Your task to perform on an android device: open sync settings in chrome Image 0: 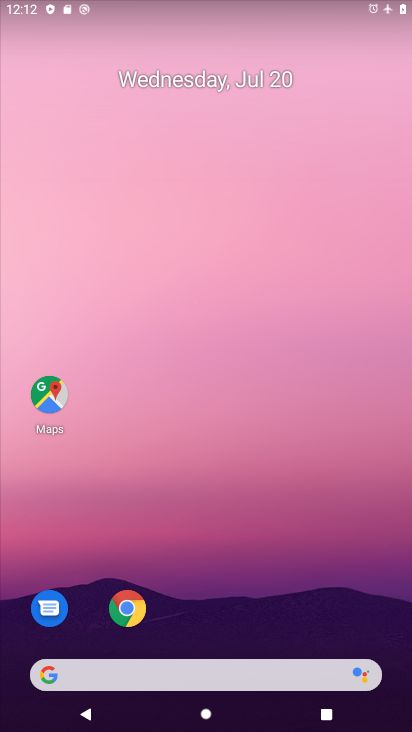
Step 0: click (126, 606)
Your task to perform on an android device: open sync settings in chrome Image 1: 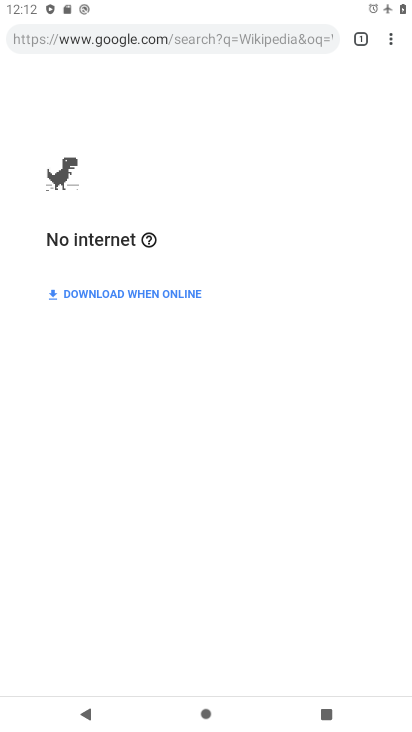
Step 1: click (392, 38)
Your task to perform on an android device: open sync settings in chrome Image 2: 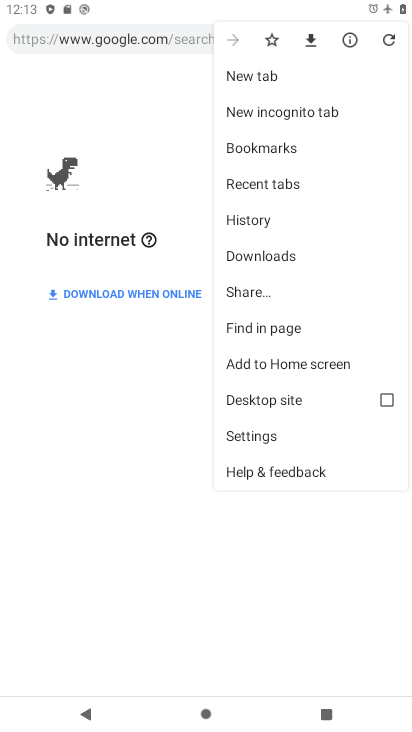
Step 2: click (258, 440)
Your task to perform on an android device: open sync settings in chrome Image 3: 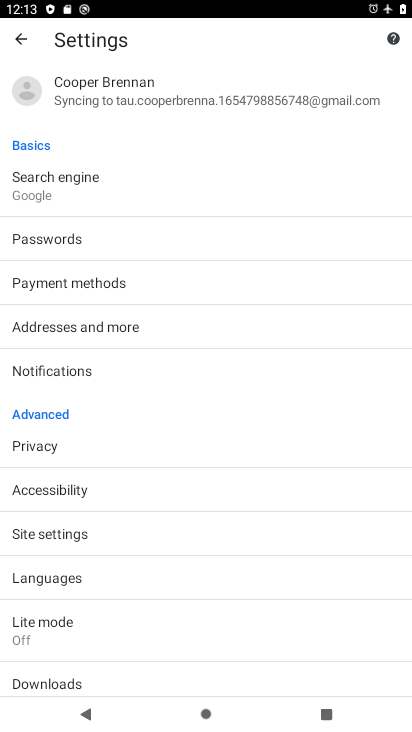
Step 3: click (56, 533)
Your task to perform on an android device: open sync settings in chrome Image 4: 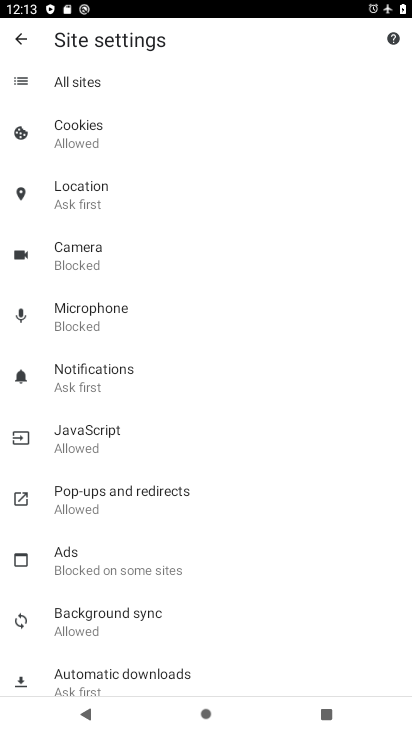
Step 4: click (103, 616)
Your task to perform on an android device: open sync settings in chrome Image 5: 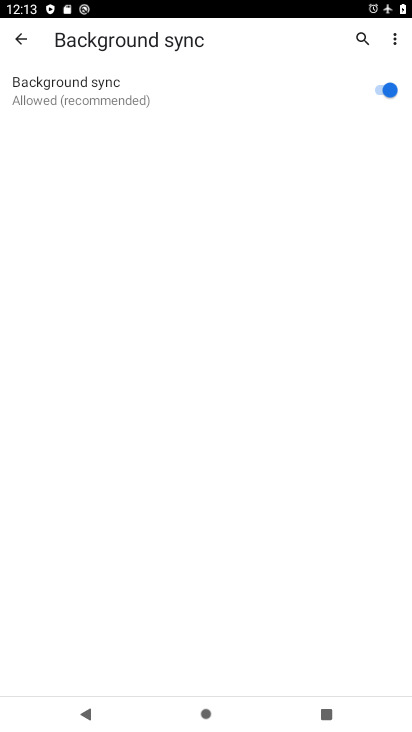
Step 5: task complete